Your task to perform on an android device: What's the weather going to be this weekend? Image 0: 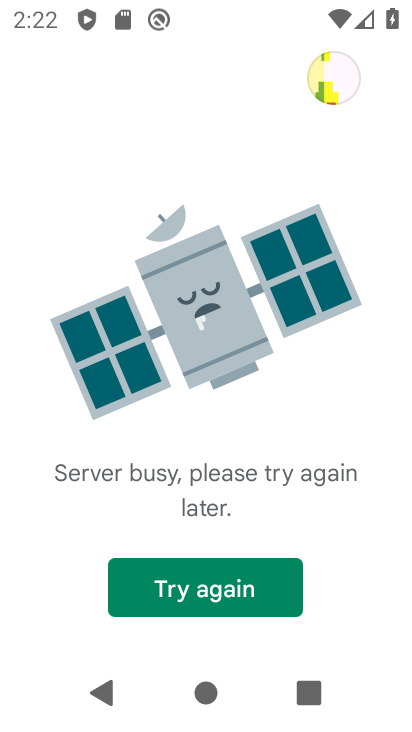
Step 0: press home button
Your task to perform on an android device: What's the weather going to be this weekend? Image 1: 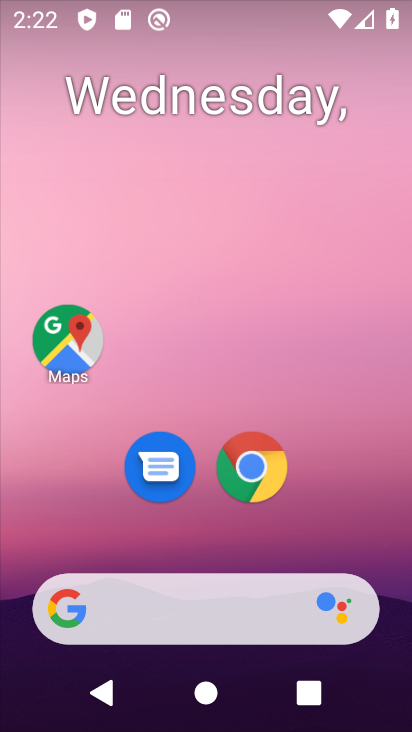
Step 1: drag from (313, 509) to (323, 471)
Your task to perform on an android device: What's the weather going to be this weekend? Image 2: 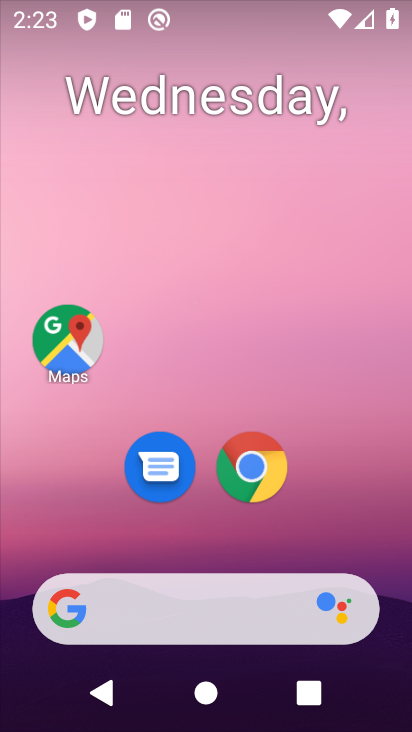
Step 2: drag from (291, 273) to (291, 216)
Your task to perform on an android device: What's the weather going to be this weekend? Image 3: 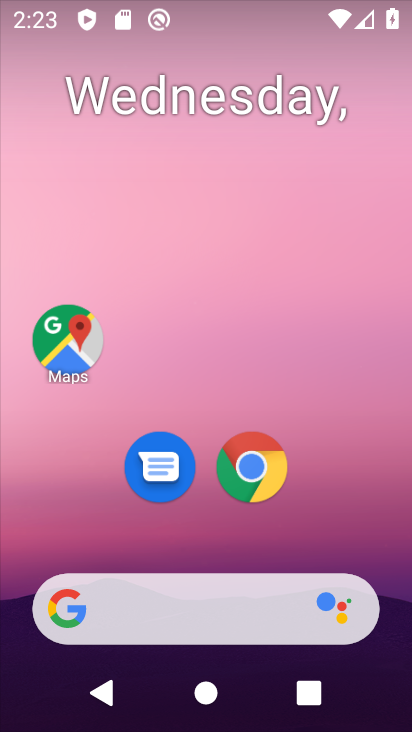
Step 3: drag from (283, 498) to (282, 82)
Your task to perform on an android device: What's the weather going to be this weekend? Image 4: 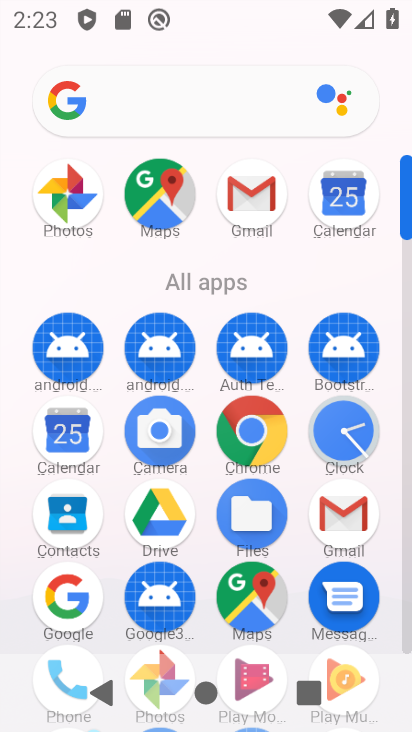
Step 4: click (80, 430)
Your task to perform on an android device: What's the weather going to be this weekend? Image 5: 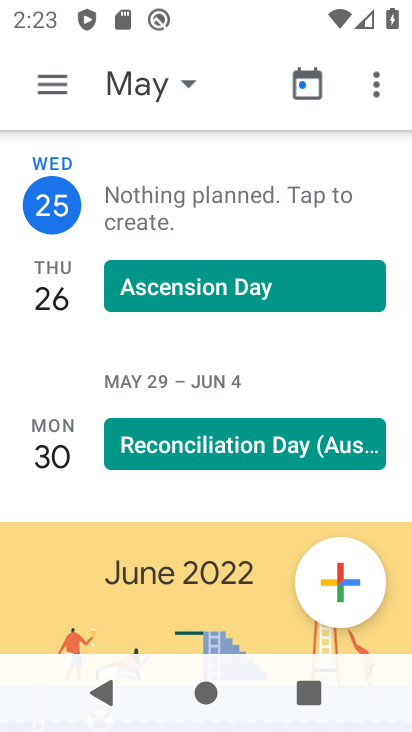
Step 5: click (56, 88)
Your task to perform on an android device: What's the weather going to be this weekend? Image 6: 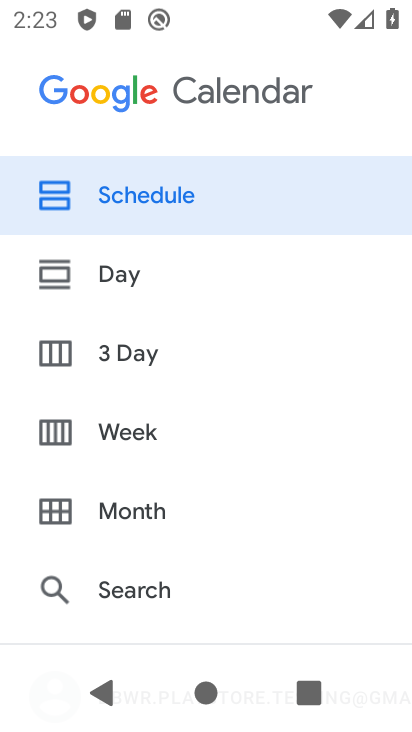
Step 6: click (123, 430)
Your task to perform on an android device: What's the weather going to be this weekend? Image 7: 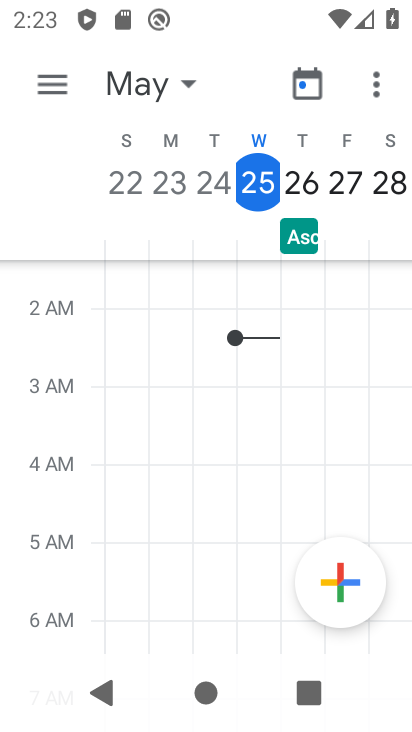
Step 7: task complete